Your task to perform on an android device: Show me popular games on the Play Store Image 0: 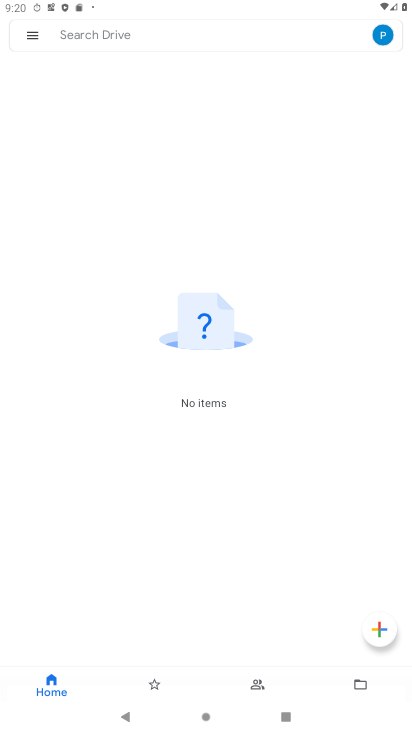
Step 0: press home button
Your task to perform on an android device: Show me popular games on the Play Store Image 1: 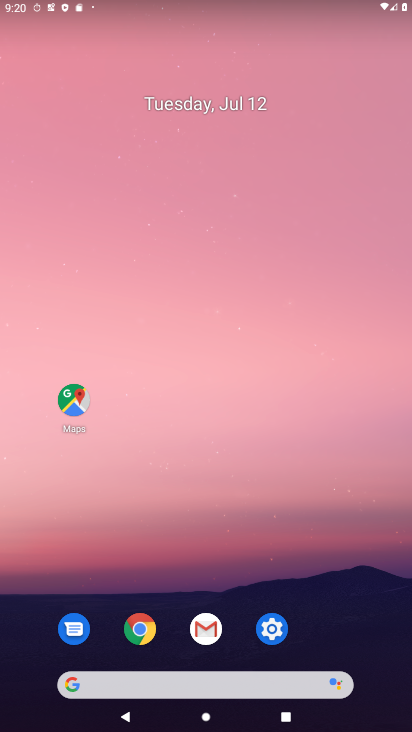
Step 1: drag from (252, 691) to (313, 114)
Your task to perform on an android device: Show me popular games on the Play Store Image 2: 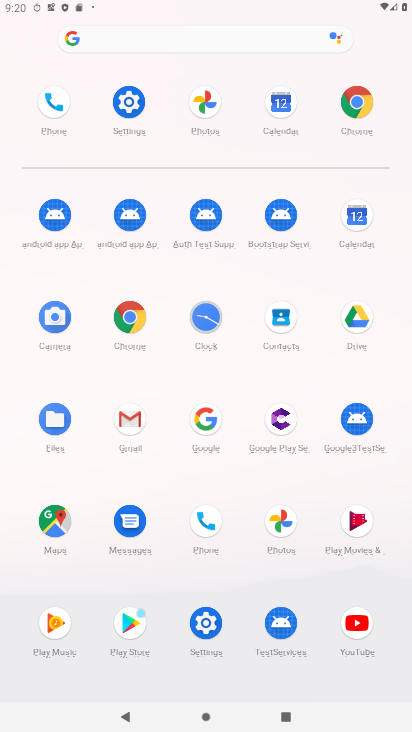
Step 2: click (119, 625)
Your task to perform on an android device: Show me popular games on the Play Store Image 3: 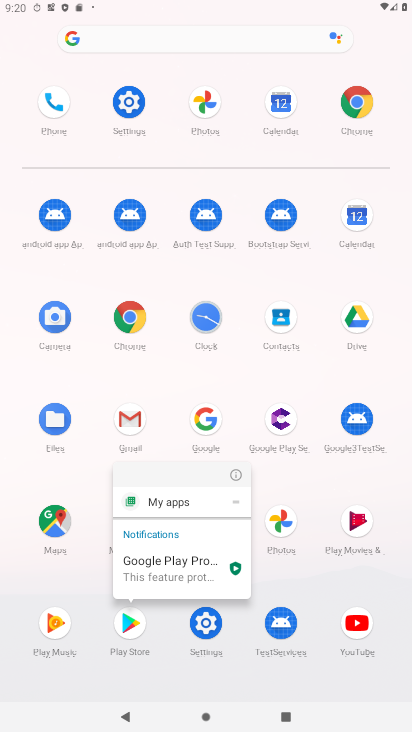
Step 3: click (120, 627)
Your task to perform on an android device: Show me popular games on the Play Store Image 4: 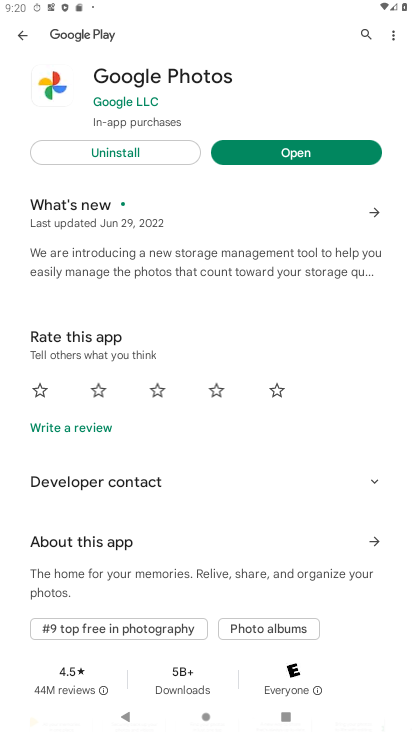
Step 4: click (363, 30)
Your task to perform on an android device: Show me popular games on the Play Store Image 5: 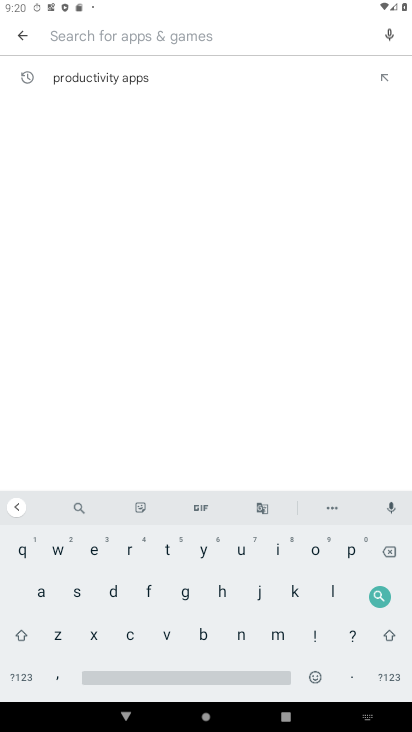
Step 5: click (347, 548)
Your task to perform on an android device: Show me popular games on the Play Store Image 6: 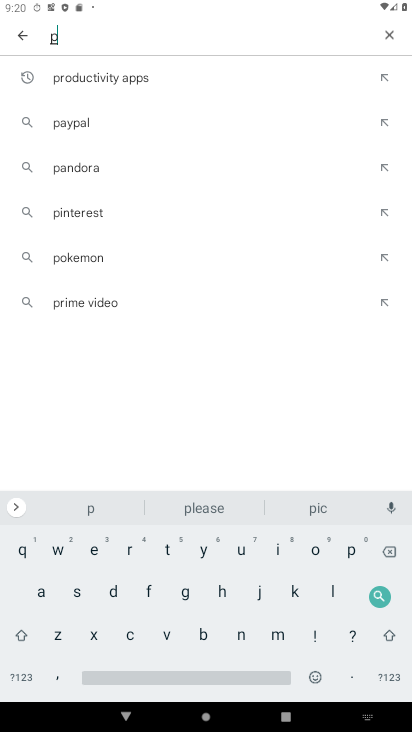
Step 6: click (312, 548)
Your task to perform on an android device: Show me popular games on the Play Store Image 7: 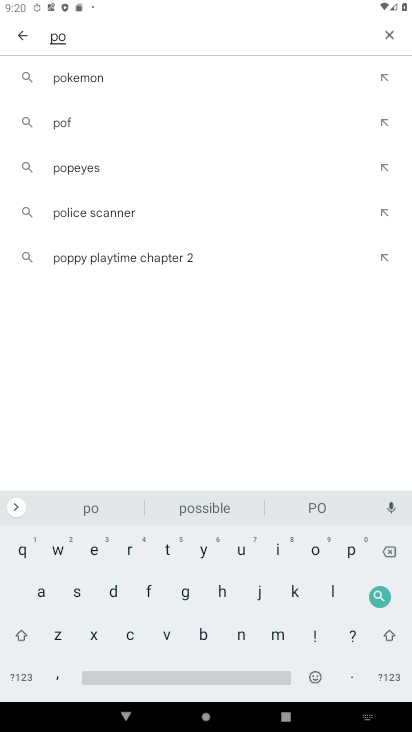
Step 7: click (352, 556)
Your task to perform on an android device: Show me popular games on the Play Store Image 8: 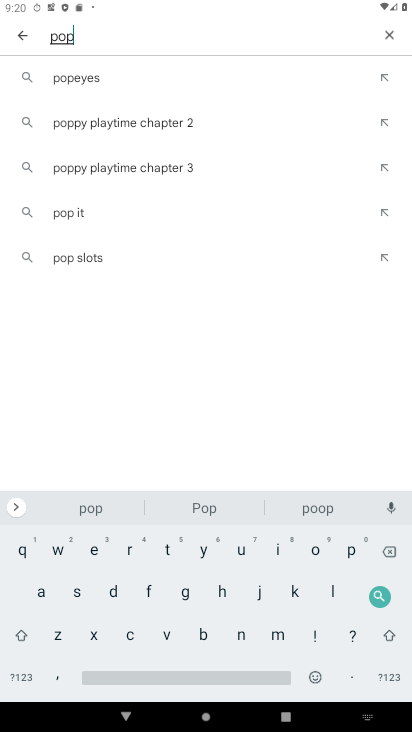
Step 8: click (240, 544)
Your task to perform on an android device: Show me popular games on the Play Store Image 9: 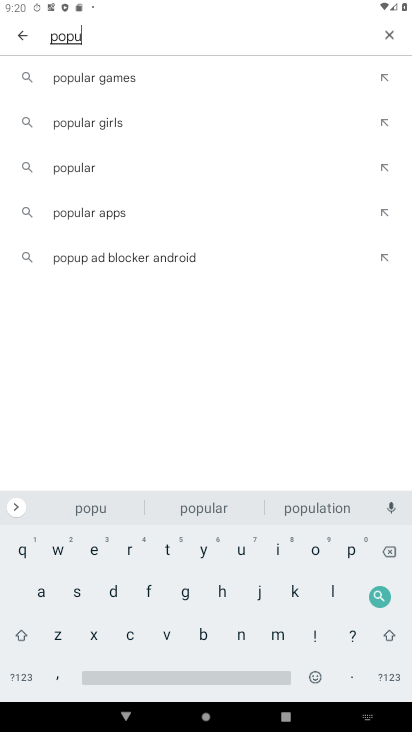
Step 9: click (85, 81)
Your task to perform on an android device: Show me popular games on the Play Store Image 10: 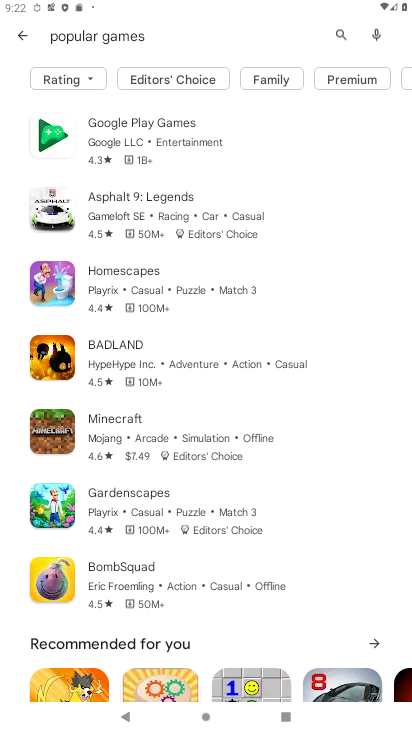
Step 10: task complete